Your task to perform on an android device: Go to accessibility settings Image 0: 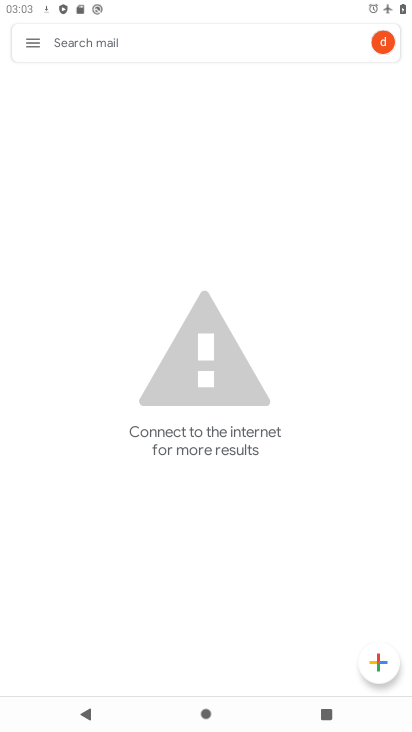
Step 0: press home button
Your task to perform on an android device: Go to accessibility settings Image 1: 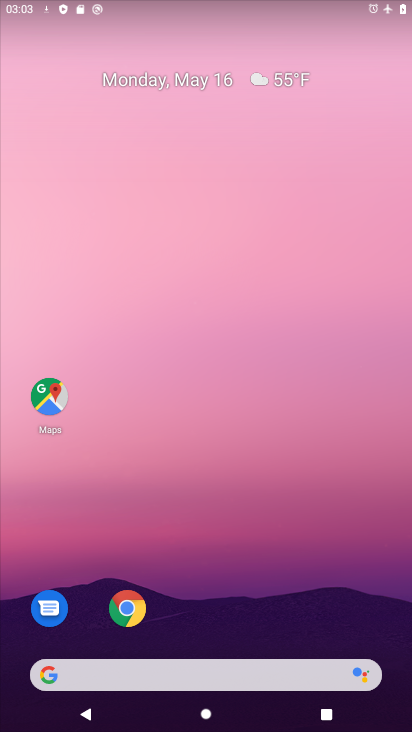
Step 1: drag from (217, 620) to (222, 201)
Your task to perform on an android device: Go to accessibility settings Image 2: 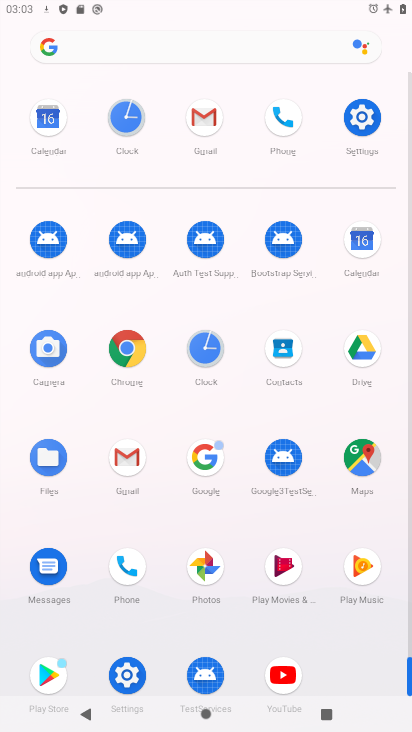
Step 2: click (369, 127)
Your task to perform on an android device: Go to accessibility settings Image 3: 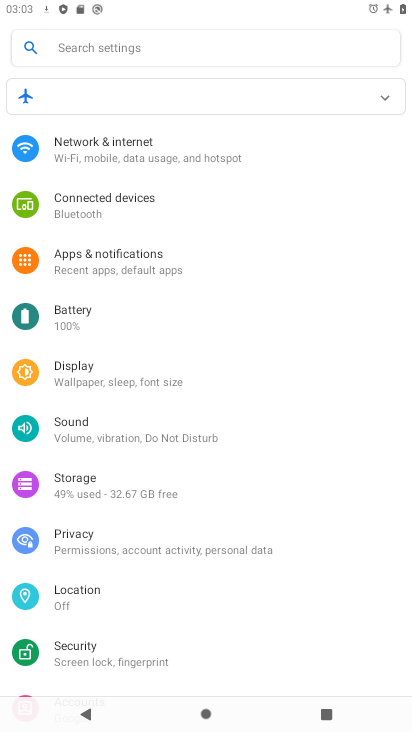
Step 3: drag from (143, 617) to (170, 343)
Your task to perform on an android device: Go to accessibility settings Image 4: 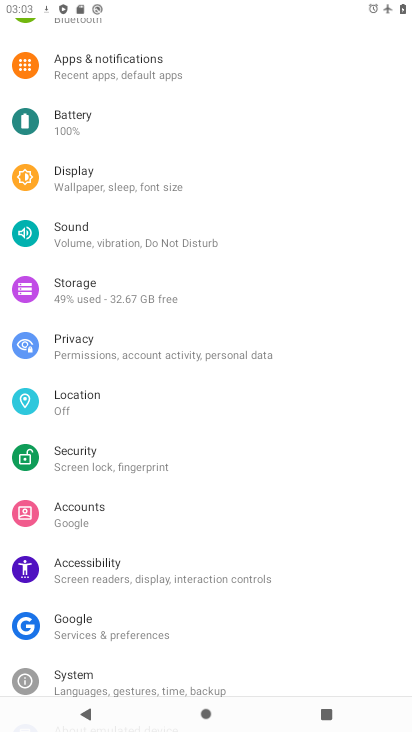
Step 4: drag from (131, 594) to (164, 327)
Your task to perform on an android device: Go to accessibility settings Image 5: 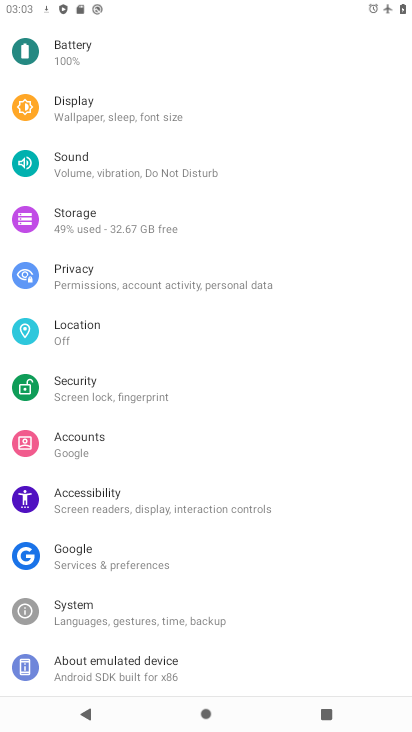
Step 5: click (130, 500)
Your task to perform on an android device: Go to accessibility settings Image 6: 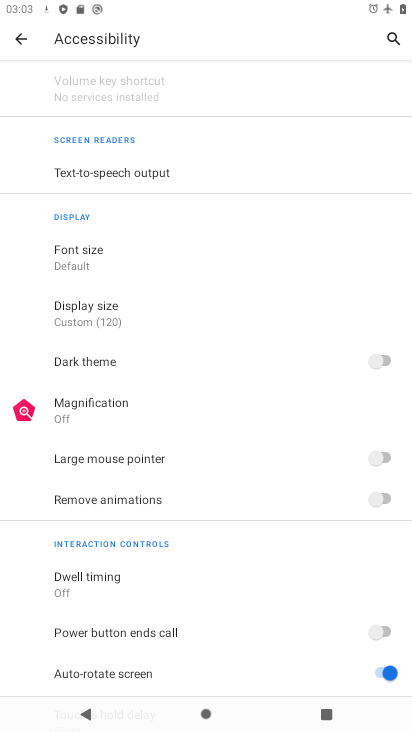
Step 6: task complete